Your task to perform on an android device: check google app version Image 0: 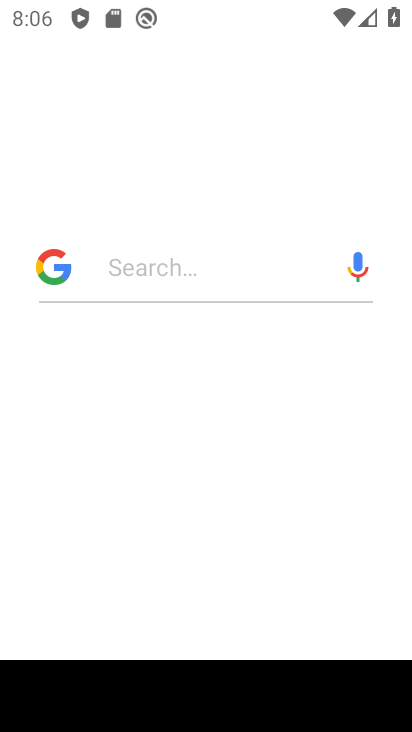
Step 0: press back button
Your task to perform on an android device: check google app version Image 1: 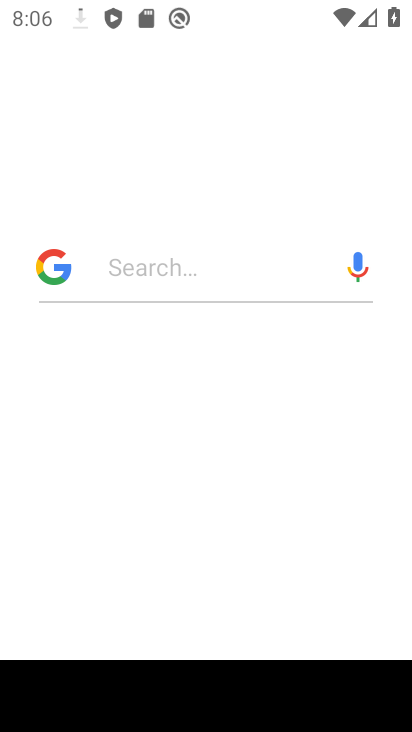
Step 1: press back button
Your task to perform on an android device: check google app version Image 2: 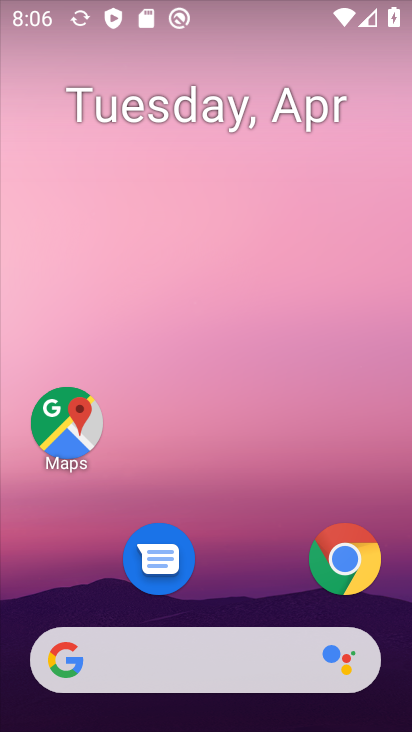
Step 2: click (340, 563)
Your task to perform on an android device: check google app version Image 3: 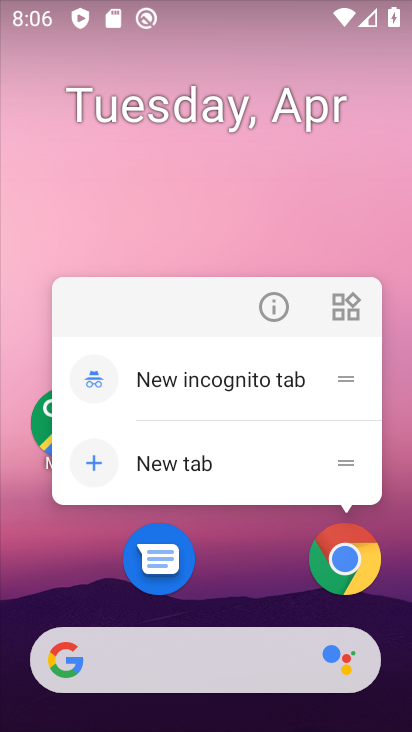
Step 3: click (340, 563)
Your task to perform on an android device: check google app version Image 4: 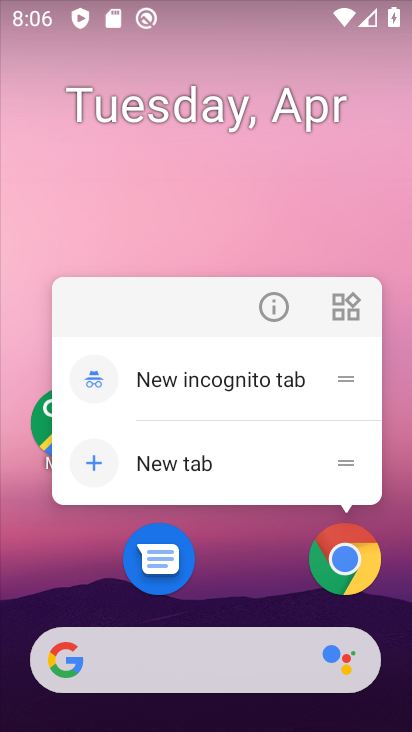
Step 4: click (340, 563)
Your task to perform on an android device: check google app version Image 5: 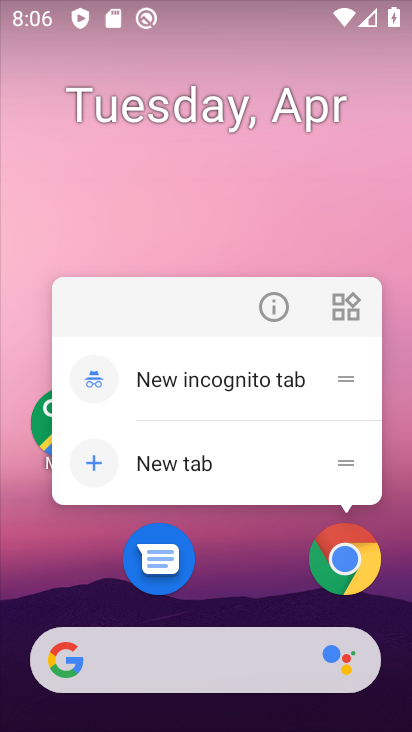
Step 5: click (340, 563)
Your task to perform on an android device: check google app version Image 6: 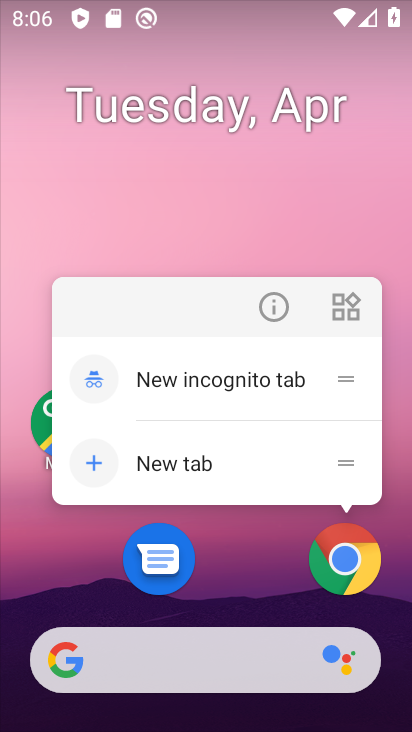
Step 6: click (225, 699)
Your task to perform on an android device: check google app version Image 7: 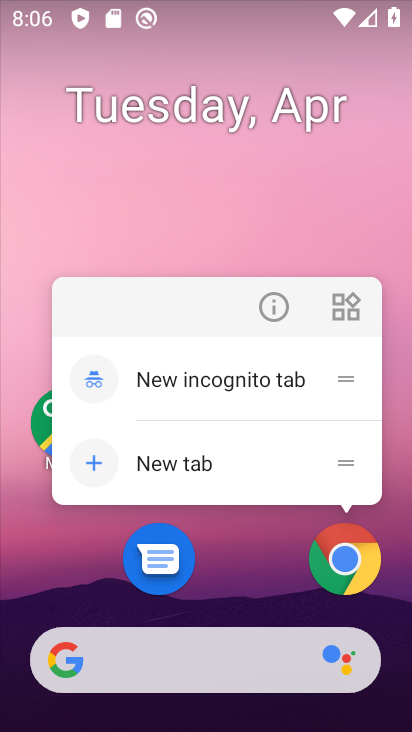
Step 7: drag from (207, 545) to (204, 69)
Your task to perform on an android device: check google app version Image 8: 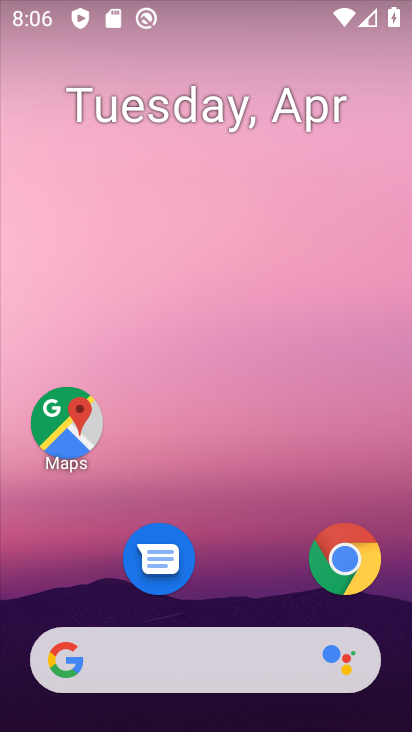
Step 8: drag from (220, 444) to (240, 43)
Your task to perform on an android device: check google app version Image 9: 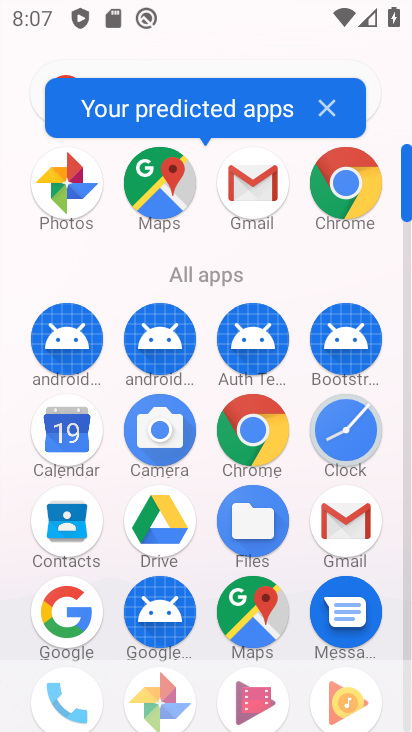
Step 9: click (327, 191)
Your task to perform on an android device: check google app version Image 10: 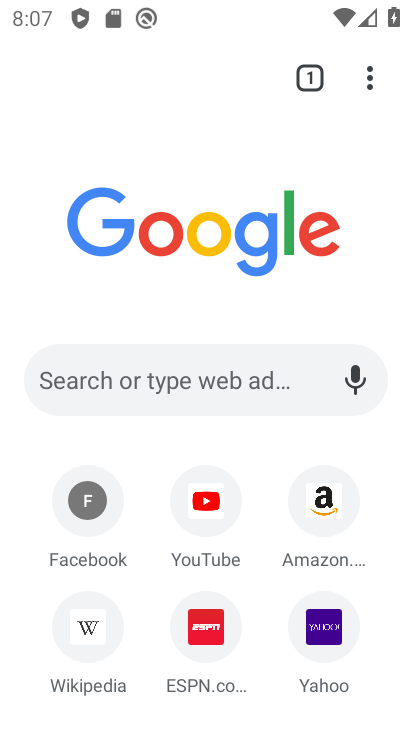
Step 10: click (373, 86)
Your task to perform on an android device: check google app version Image 11: 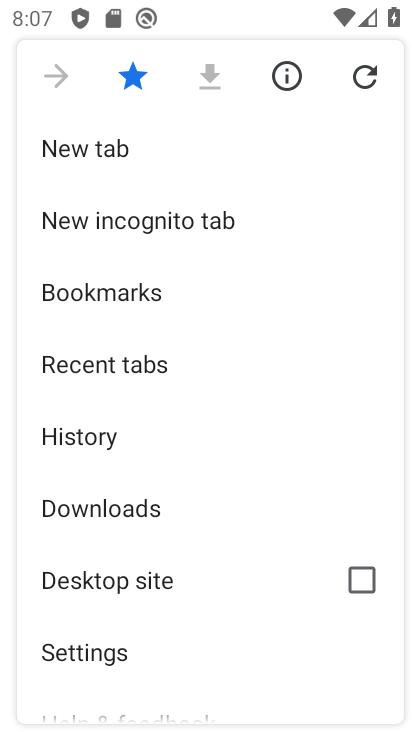
Step 11: click (84, 648)
Your task to perform on an android device: check google app version Image 12: 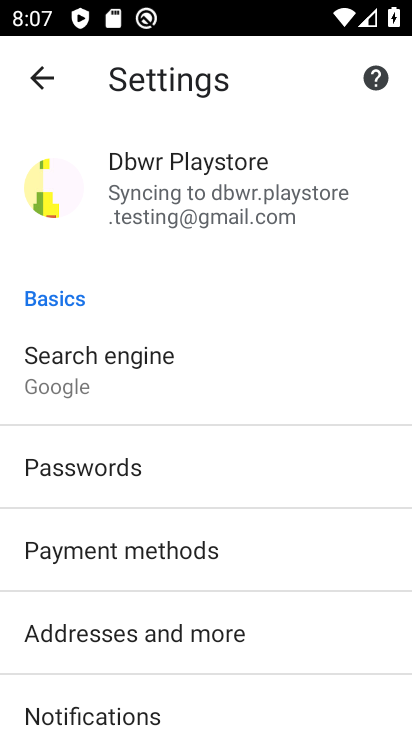
Step 12: drag from (139, 594) to (142, 404)
Your task to perform on an android device: check google app version Image 13: 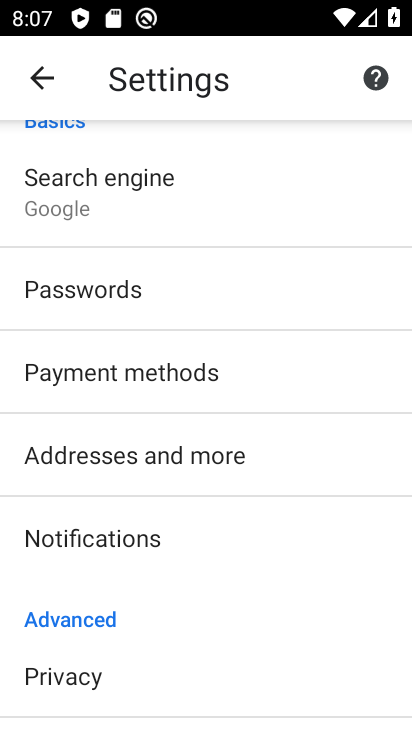
Step 13: drag from (160, 540) to (176, 82)
Your task to perform on an android device: check google app version Image 14: 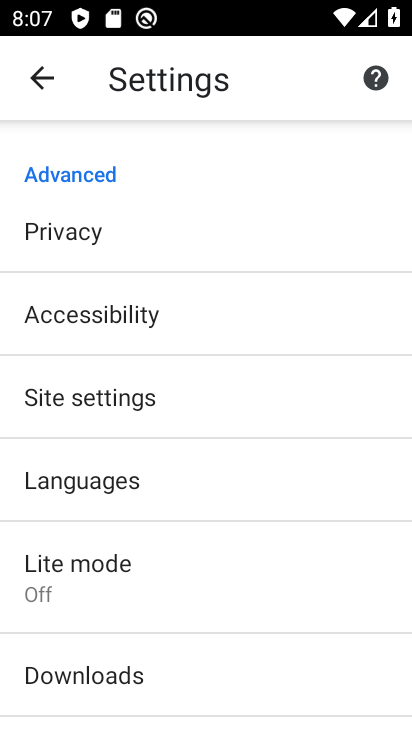
Step 14: drag from (165, 561) to (173, 420)
Your task to perform on an android device: check google app version Image 15: 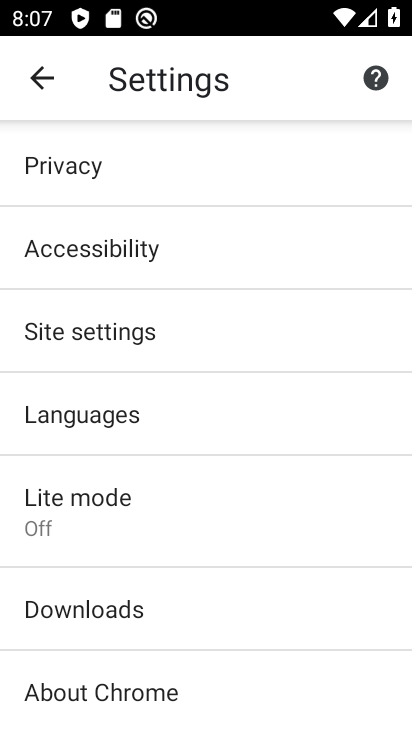
Step 15: click (106, 687)
Your task to perform on an android device: check google app version Image 16: 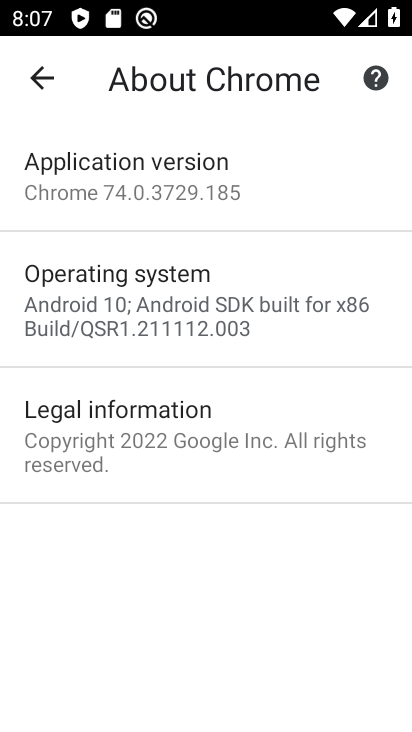
Step 16: click (179, 174)
Your task to perform on an android device: check google app version Image 17: 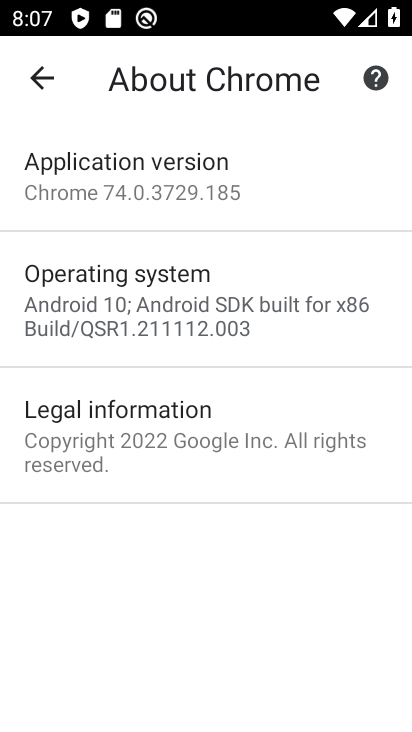
Step 17: task complete